Your task to perform on an android device: Go to battery settings Image 0: 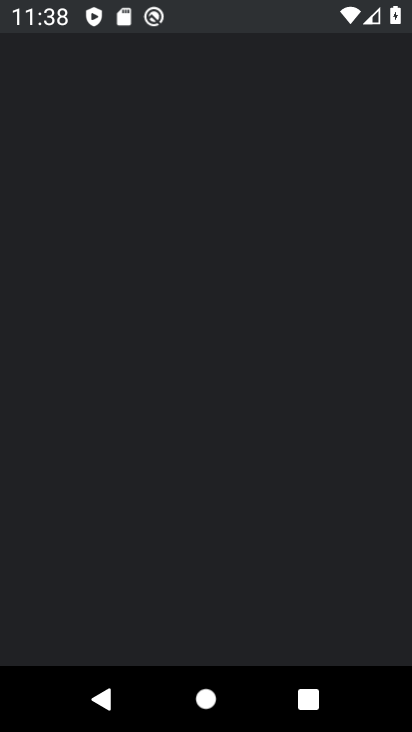
Step 0: drag from (238, 578) to (122, 5)
Your task to perform on an android device: Go to battery settings Image 1: 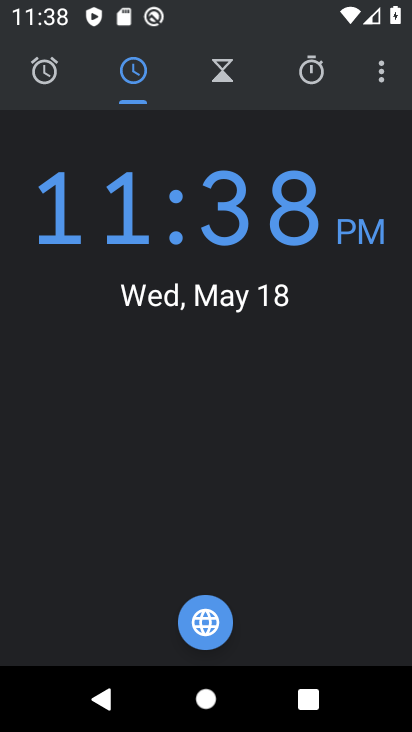
Step 1: press home button
Your task to perform on an android device: Go to battery settings Image 2: 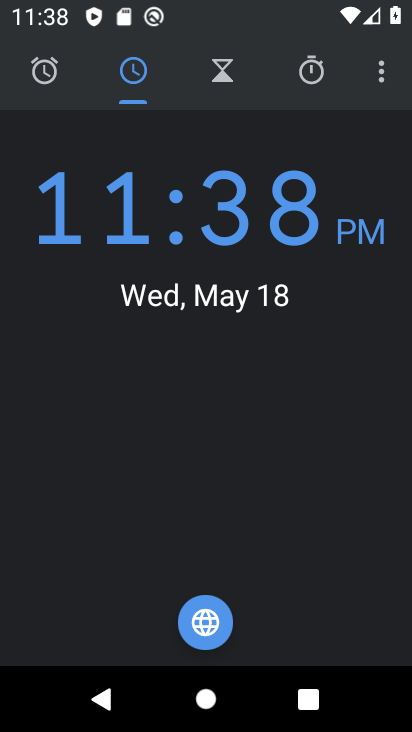
Step 2: drag from (122, 5) to (404, 483)
Your task to perform on an android device: Go to battery settings Image 3: 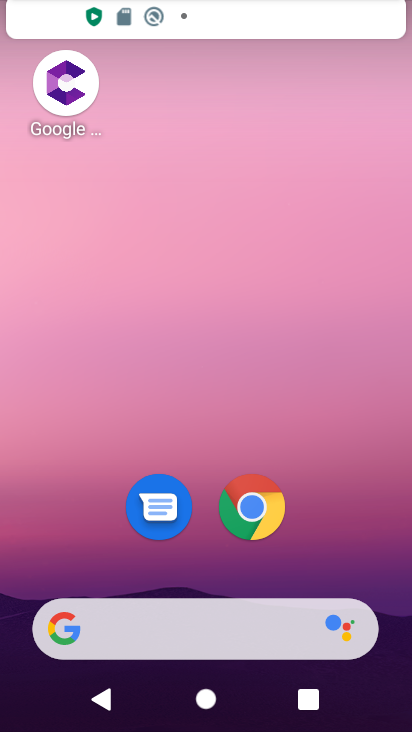
Step 3: drag from (200, 580) to (131, 33)
Your task to perform on an android device: Go to battery settings Image 4: 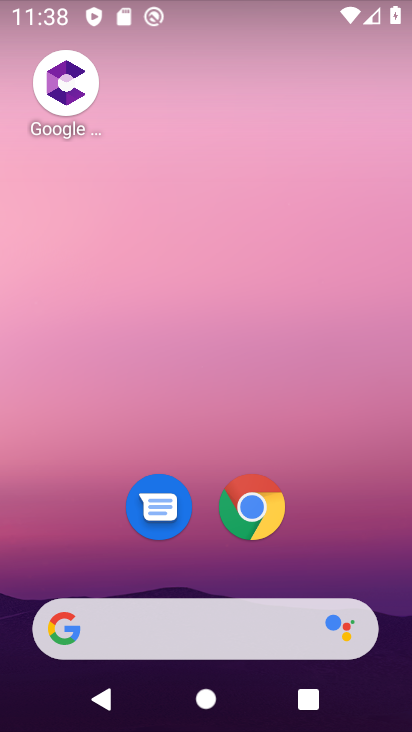
Step 4: drag from (223, 566) to (184, 165)
Your task to perform on an android device: Go to battery settings Image 5: 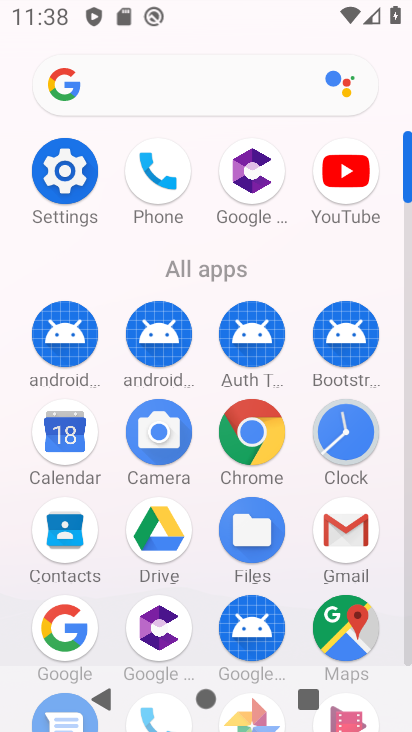
Step 5: click (69, 175)
Your task to perform on an android device: Go to battery settings Image 6: 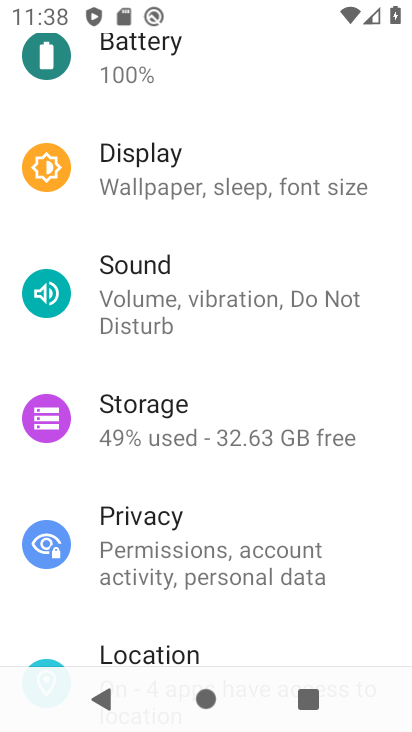
Step 6: drag from (272, 555) to (180, 224)
Your task to perform on an android device: Go to battery settings Image 7: 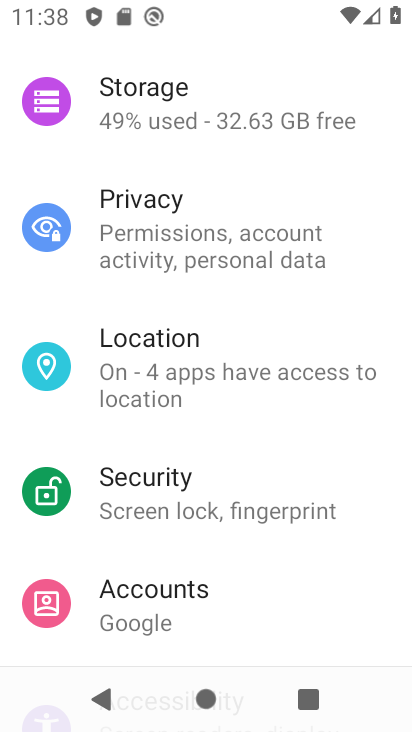
Step 7: drag from (203, 154) to (273, 730)
Your task to perform on an android device: Go to battery settings Image 8: 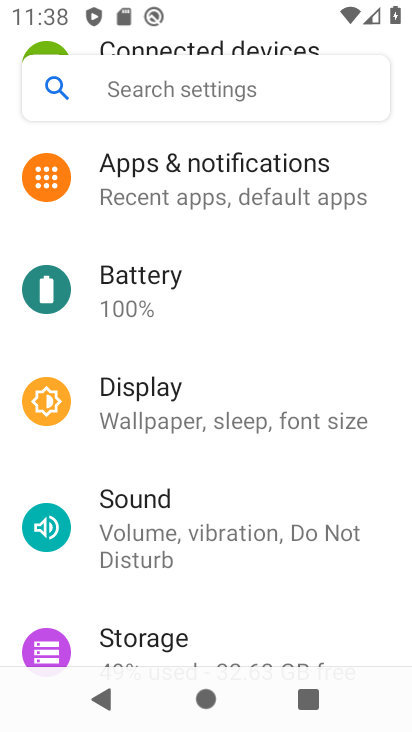
Step 8: click (172, 303)
Your task to perform on an android device: Go to battery settings Image 9: 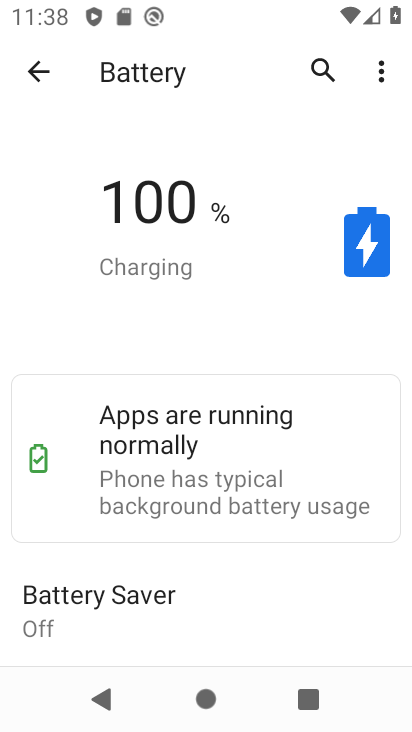
Step 9: task complete